Your task to perform on an android device: empty trash in google photos Image 0: 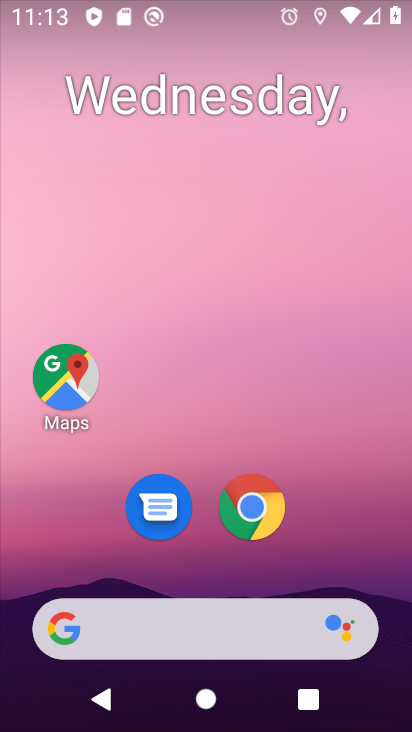
Step 0: drag from (347, 547) to (352, 158)
Your task to perform on an android device: empty trash in google photos Image 1: 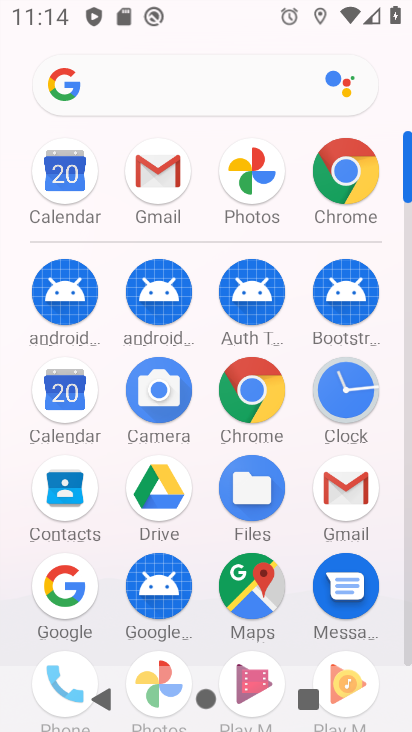
Step 1: drag from (196, 618) to (193, 391)
Your task to perform on an android device: empty trash in google photos Image 2: 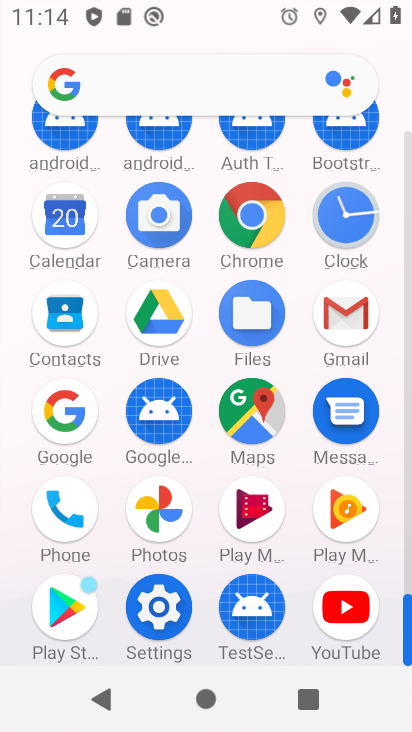
Step 2: click (159, 517)
Your task to perform on an android device: empty trash in google photos Image 3: 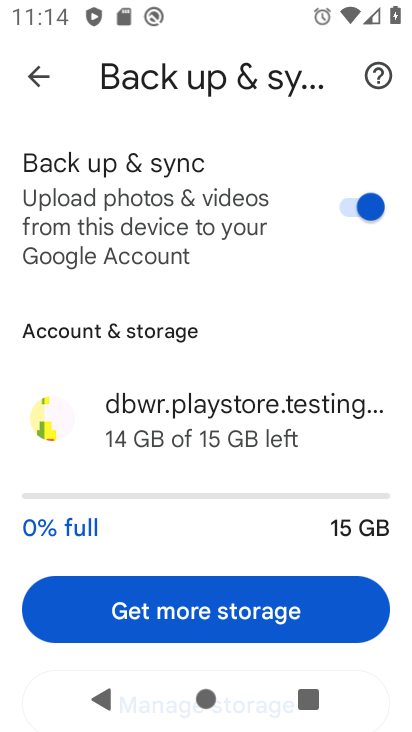
Step 3: click (38, 75)
Your task to perform on an android device: empty trash in google photos Image 4: 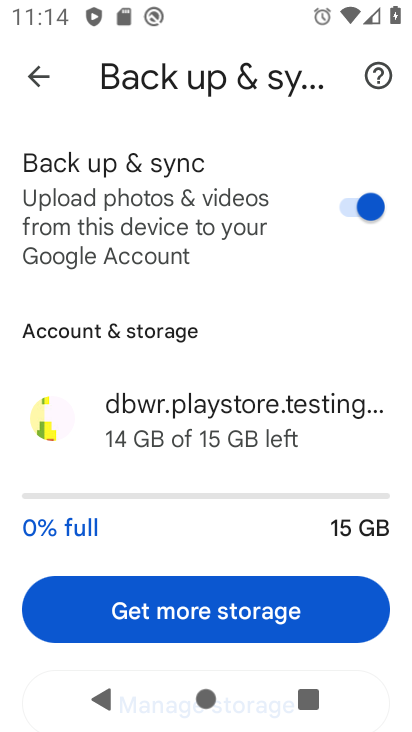
Step 4: click (35, 80)
Your task to perform on an android device: empty trash in google photos Image 5: 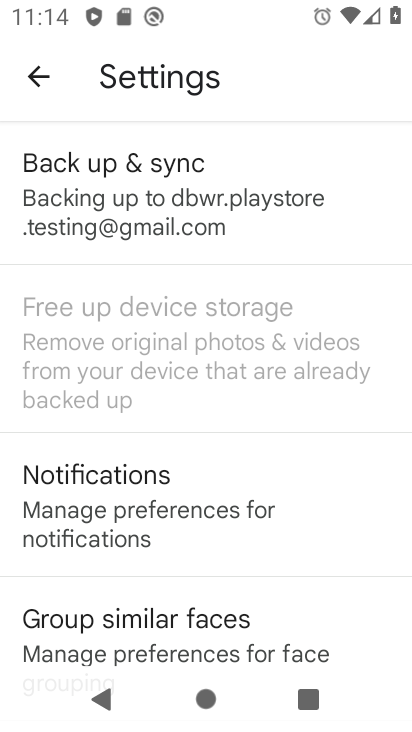
Step 5: click (38, 80)
Your task to perform on an android device: empty trash in google photos Image 6: 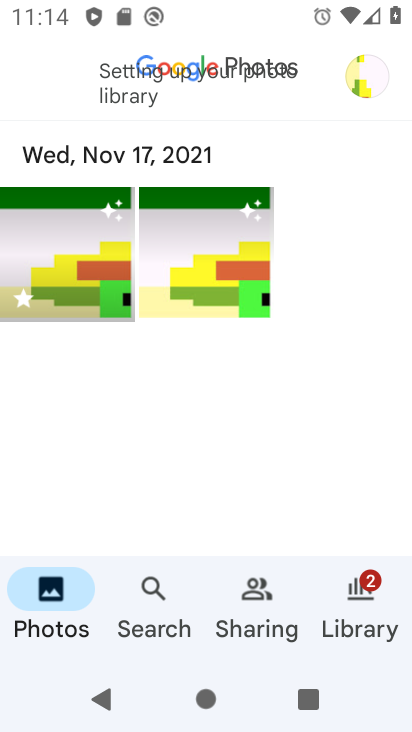
Step 6: click (369, 93)
Your task to perform on an android device: empty trash in google photos Image 7: 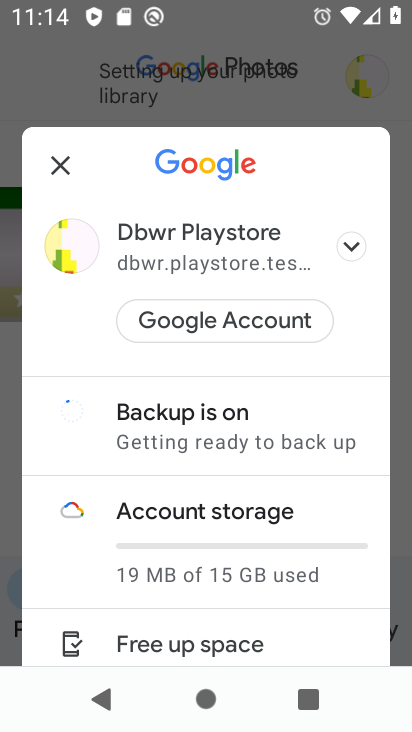
Step 7: drag from (341, 569) to (328, 255)
Your task to perform on an android device: empty trash in google photos Image 8: 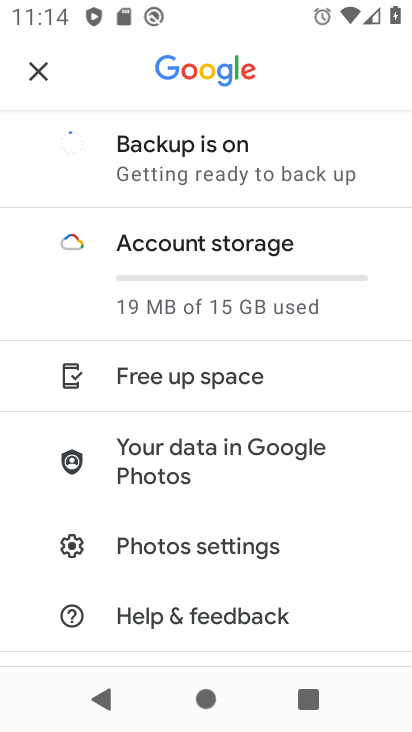
Step 8: drag from (337, 538) to (350, 320)
Your task to perform on an android device: empty trash in google photos Image 9: 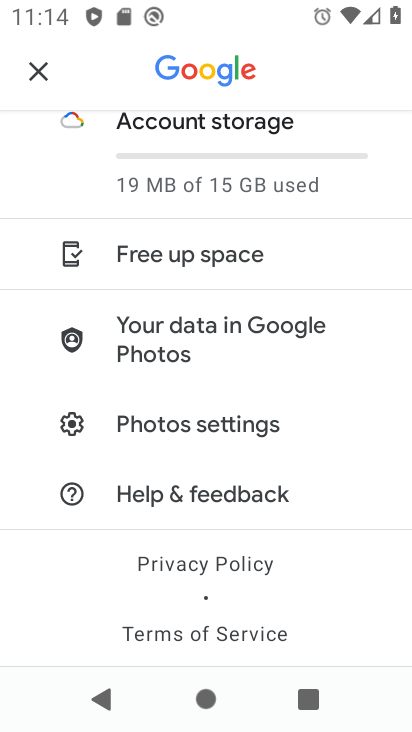
Step 9: drag from (337, 568) to (335, 343)
Your task to perform on an android device: empty trash in google photos Image 10: 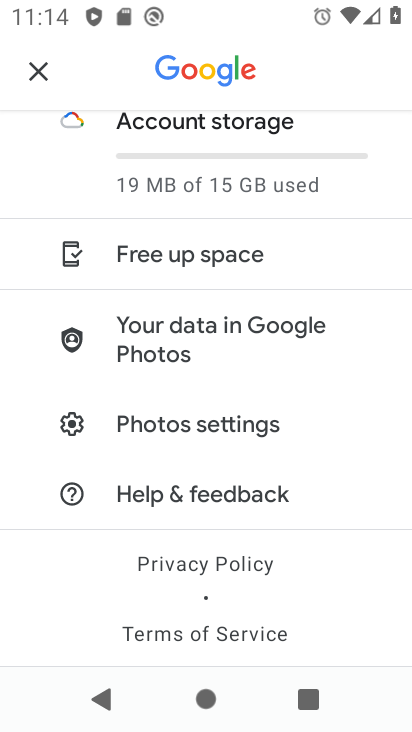
Step 10: click (42, 67)
Your task to perform on an android device: empty trash in google photos Image 11: 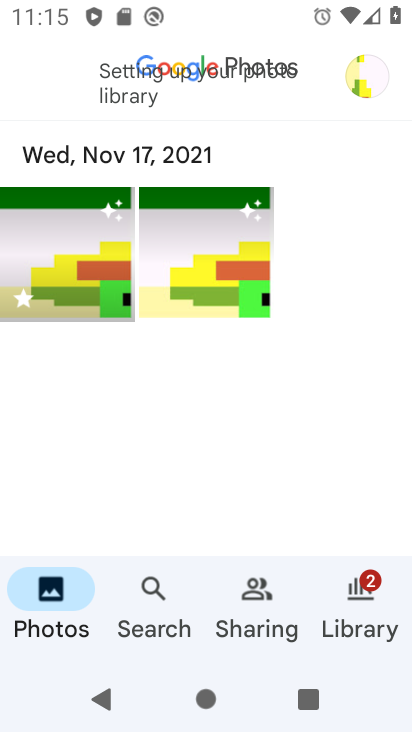
Step 11: click (350, 602)
Your task to perform on an android device: empty trash in google photos Image 12: 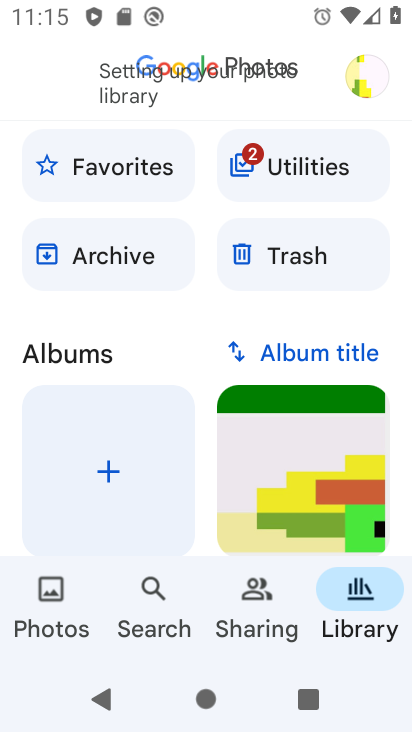
Step 12: click (276, 249)
Your task to perform on an android device: empty trash in google photos Image 13: 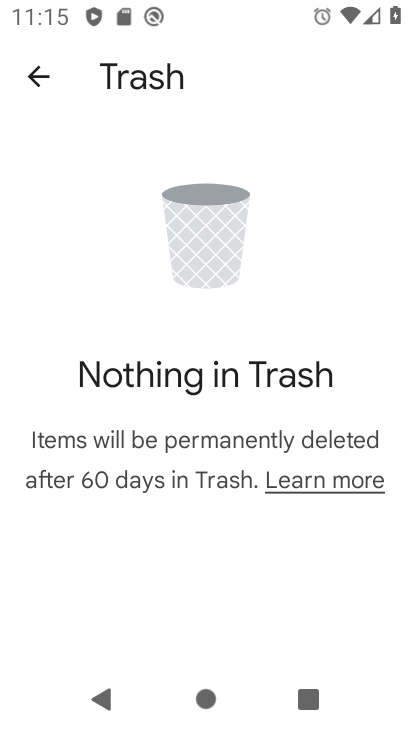
Step 13: task complete